Your task to perform on an android device: toggle priority inbox in the gmail app Image 0: 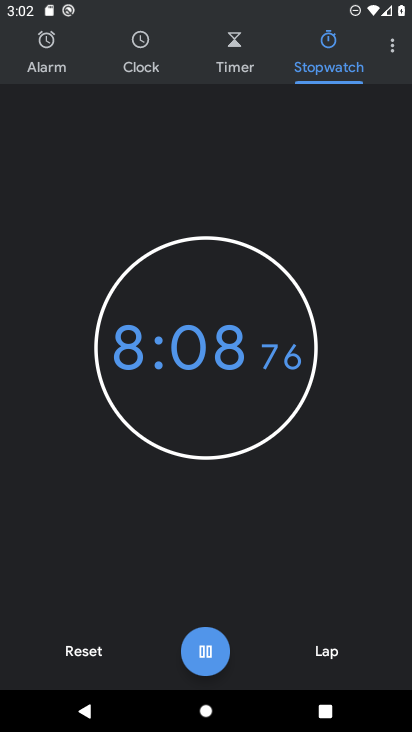
Step 0: press home button
Your task to perform on an android device: toggle priority inbox in the gmail app Image 1: 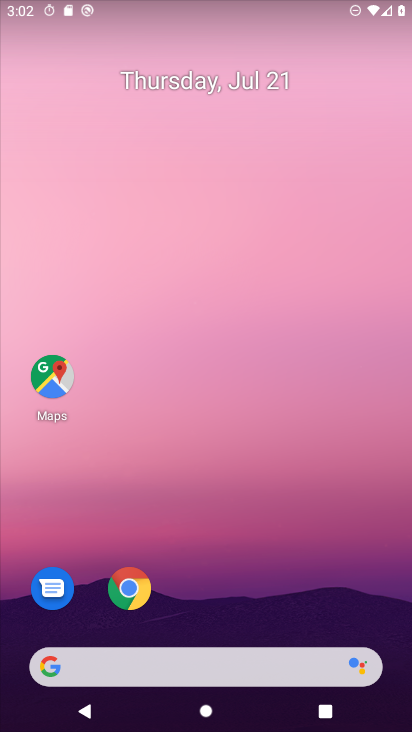
Step 1: drag from (190, 551) to (207, 30)
Your task to perform on an android device: toggle priority inbox in the gmail app Image 2: 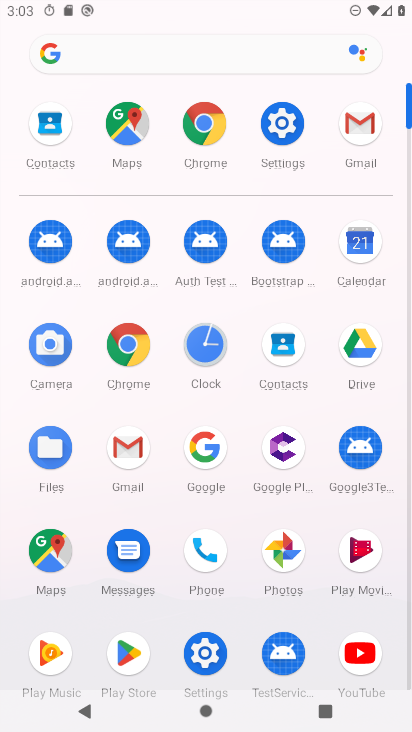
Step 2: click (137, 452)
Your task to perform on an android device: toggle priority inbox in the gmail app Image 3: 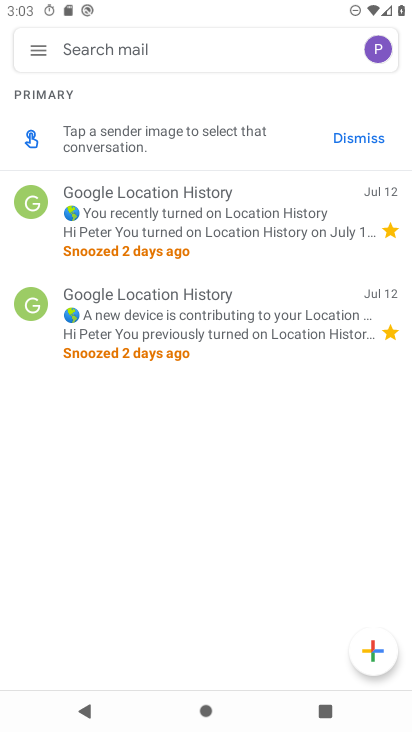
Step 3: click (36, 52)
Your task to perform on an android device: toggle priority inbox in the gmail app Image 4: 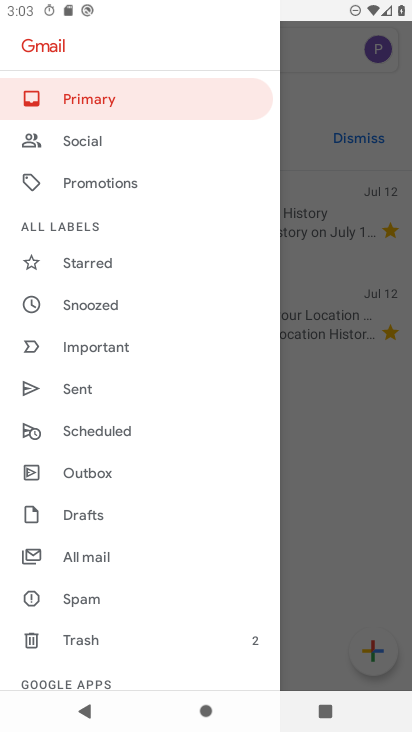
Step 4: drag from (171, 517) to (291, 60)
Your task to perform on an android device: toggle priority inbox in the gmail app Image 5: 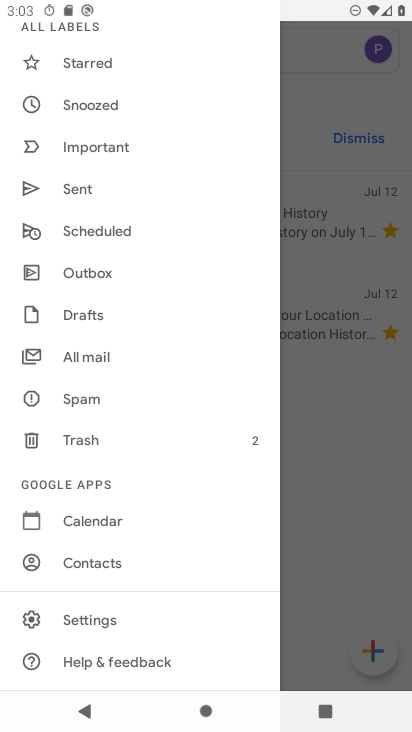
Step 5: click (94, 617)
Your task to perform on an android device: toggle priority inbox in the gmail app Image 6: 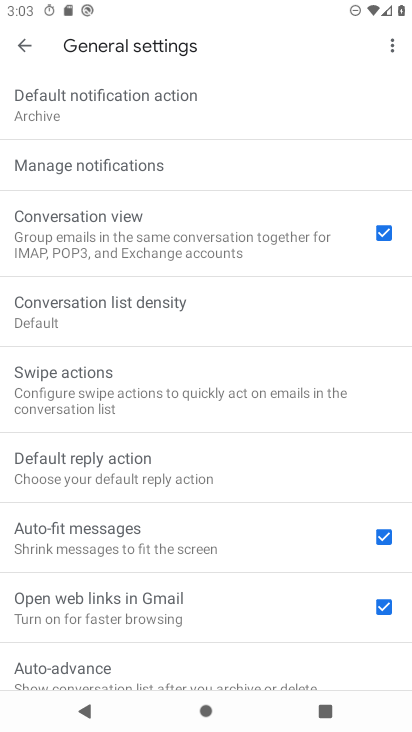
Step 6: click (21, 48)
Your task to perform on an android device: toggle priority inbox in the gmail app Image 7: 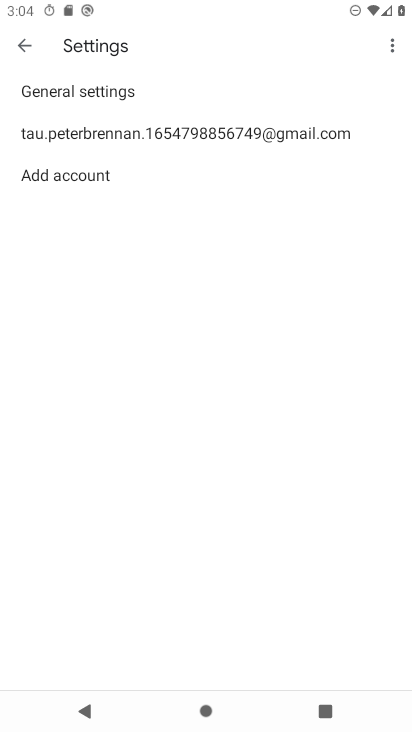
Step 7: click (139, 129)
Your task to perform on an android device: toggle priority inbox in the gmail app Image 8: 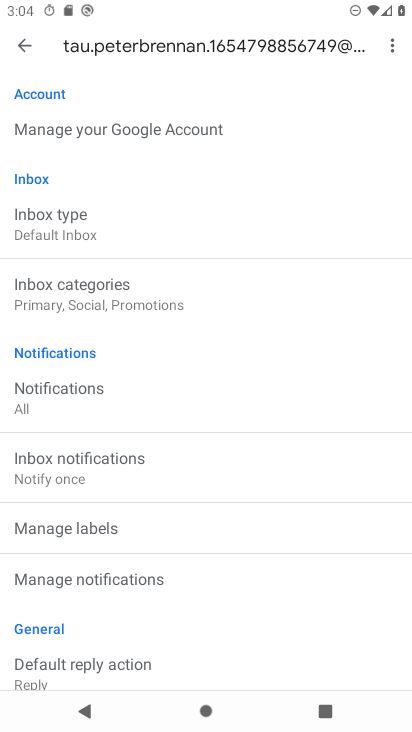
Step 8: drag from (150, 558) to (189, 342)
Your task to perform on an android device: toggle priority inbox in the gmail app Image 9: 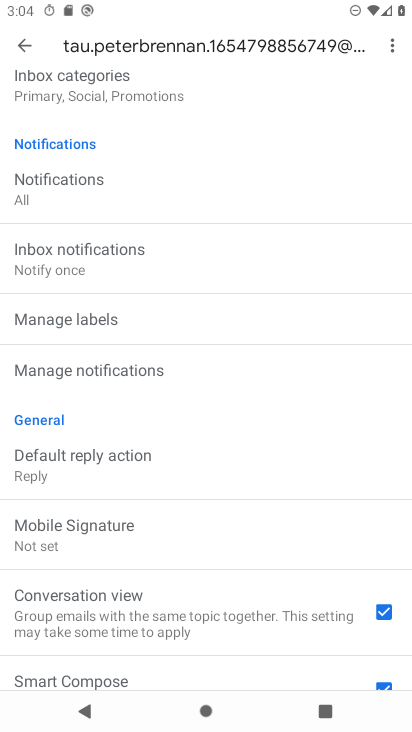
Step 9: drag from (83, 140) to (33, 716)
Your task to perform on an android device: toggle priority inbox in the gmail app Image 10: 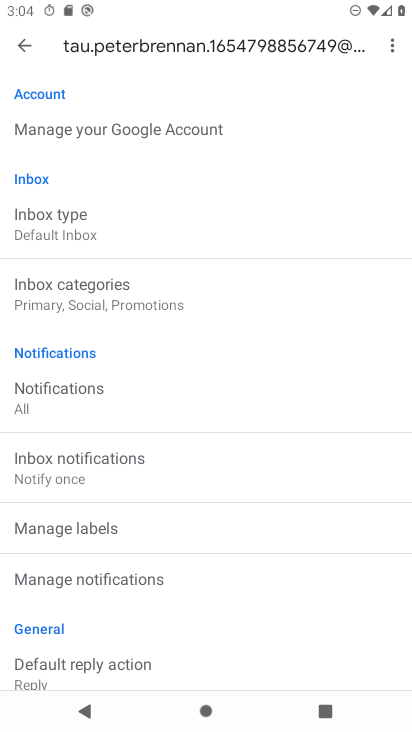
Step 10: click (90, 226)
Your task to perform on an android device: toggle priority inbox in the gmail app Image 11: 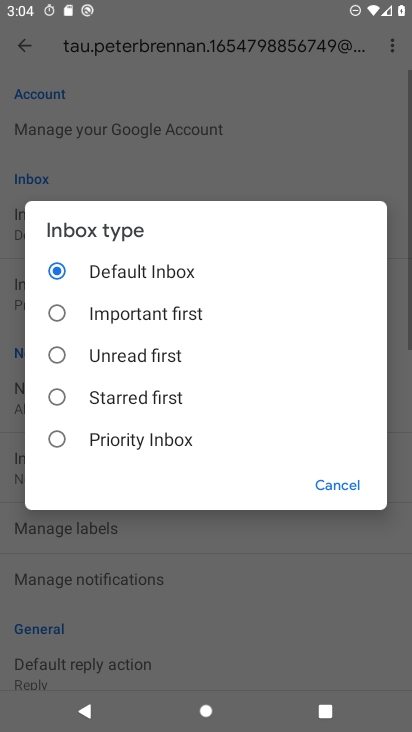
Step 11: click (137, 426)
Your task to perform on an android device: toggle priority inbox in the gmail app Image 12: 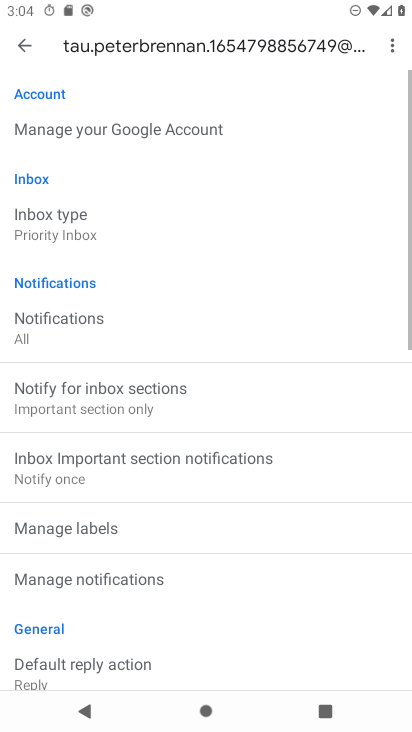
Step 12: task complete